Your task to perform on an android device: Go to ESPN.com Image 0: 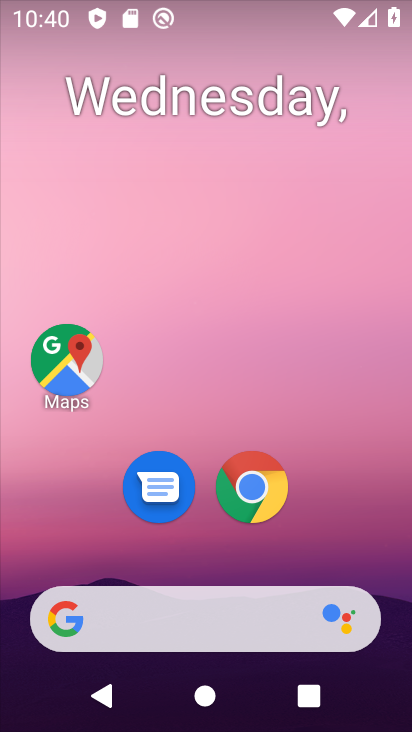
Step 0: click (253, 485)
Your task to perform on an android device: Go to ESPN.com Image 1: 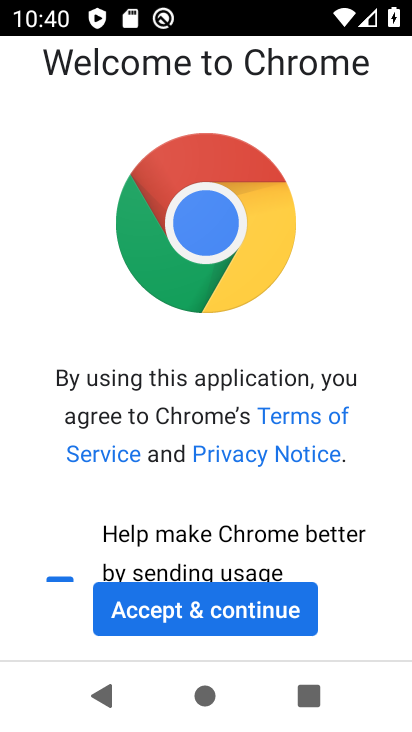
Step 1: click (225, 624)
Your task to perform on an android device: Go to ESPN.com Image 2: 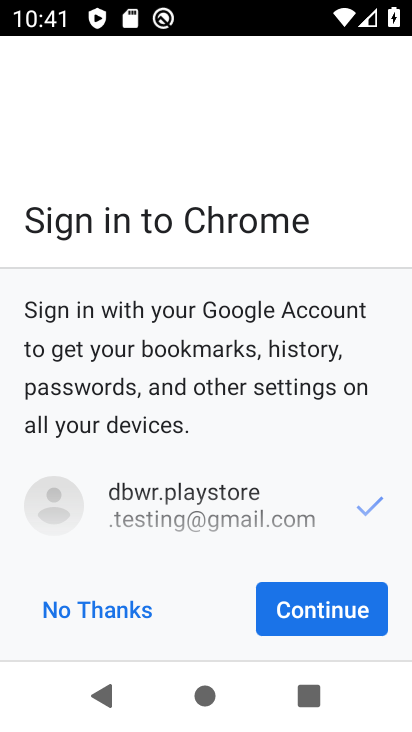
Step 2: click (281, 607)
Your task to perform on an android device: Go to ESPN.com Image 3: 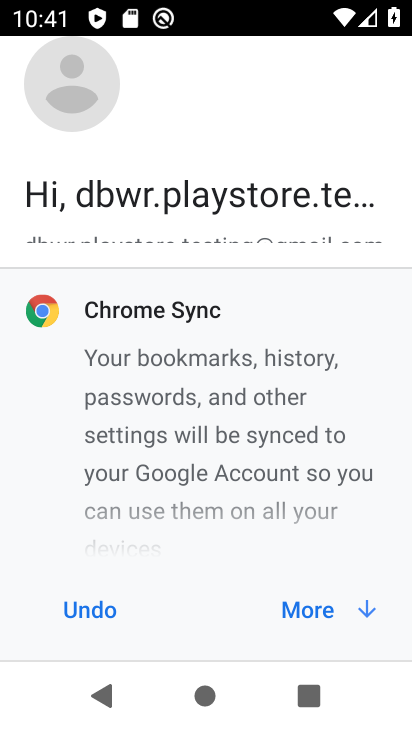
Step 3: click (294, 603)
Your task to perform on an android device: Go to ESPN.com Image 4: 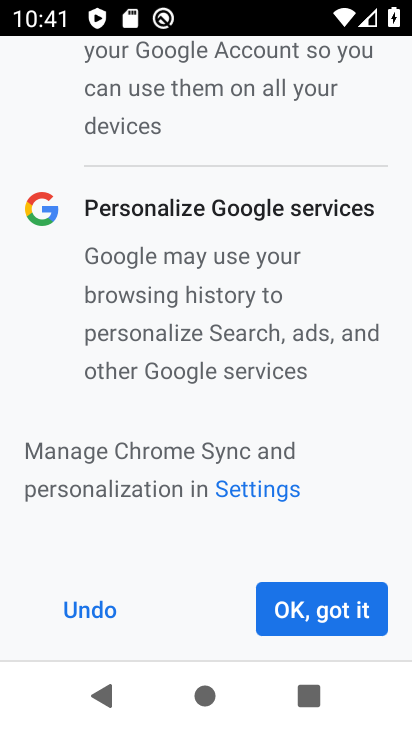
Step 4: click (294, 603)
Your task to perform on an android device: Go to ESPN.com Image 5: 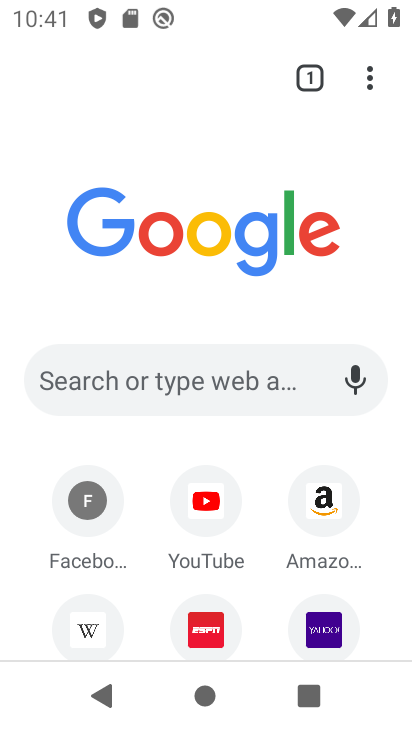
Step 5: click (230, 384)
Your task to perform on an android device: Go to ESPN.com Image 6: 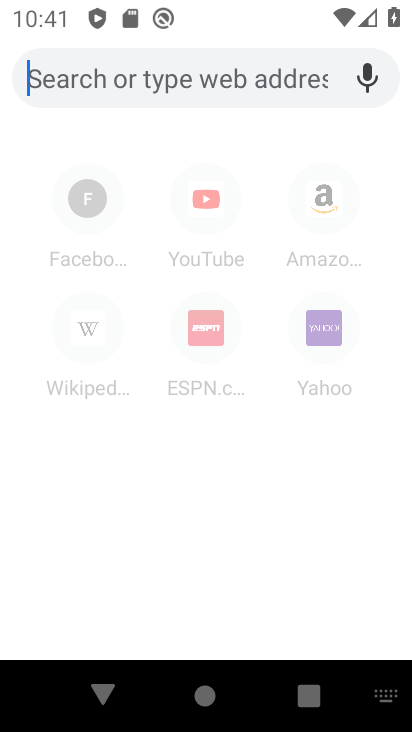
Step 6: type "espn.com"
Your task to perform on an android device: Go to ESPN.com Image 7: 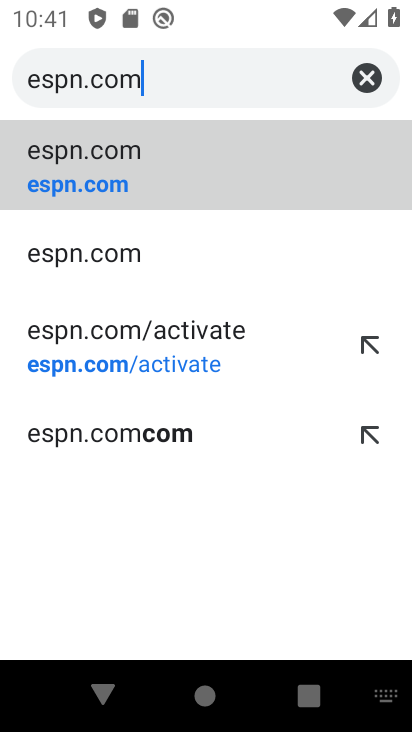
Step 7: click (191, 152)
Your task to perform on an android device: Go to ESPN.com Image 8: 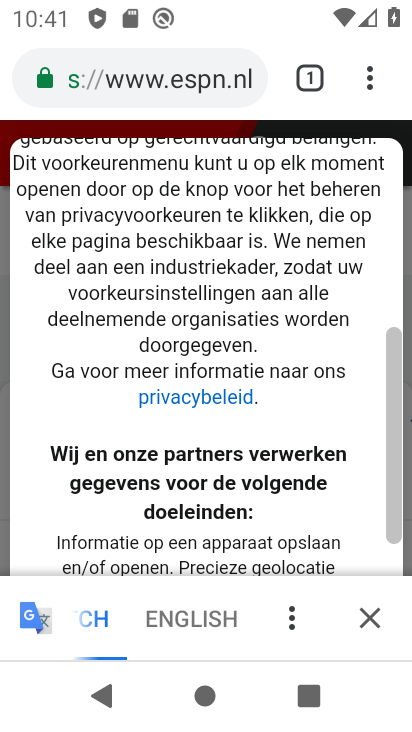
Step 8: task complete